Your task to perform on an android device: turn on improve location accuracy Image 0: 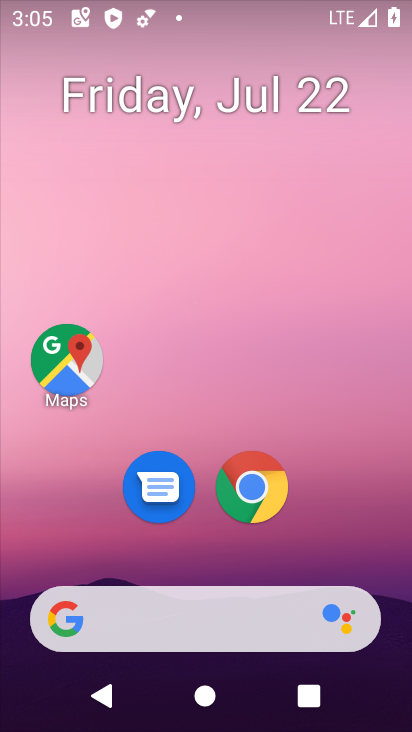
Step 0: drag from (164, 575) to (195, 0)
Your task to perform on an android device: turn on improve location accuracy Image 1: 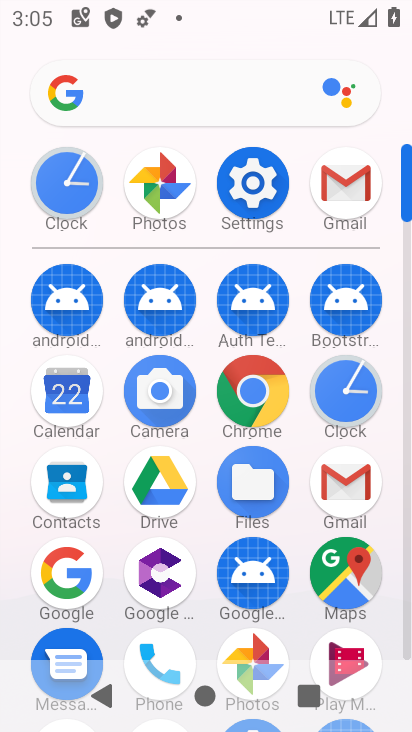
Step 1: click (255, 176)
Your task to perform on an android device: turn on improve location accuracy Image 2: 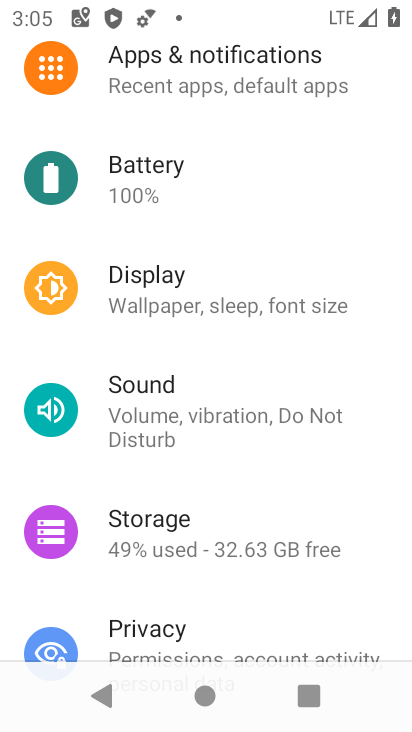
Step 2: drag from (177, 593) to (246, 123)
Your task to perform on an android device: turn on improve location accuracy Image 3: 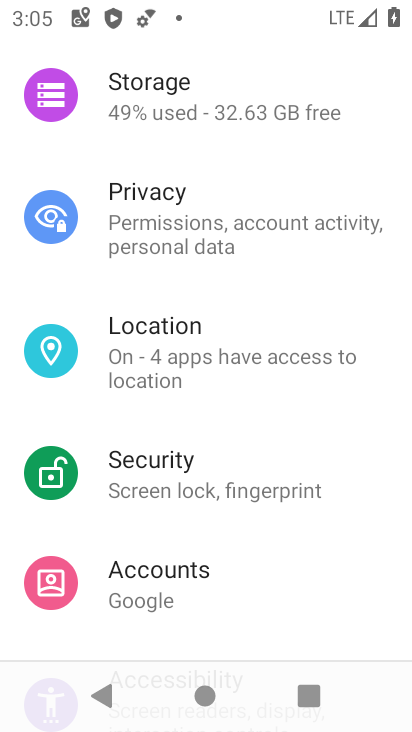
Step 3: click (177, 342)
Your task to perform on an android device: turn on improve location accuracy Image 4: 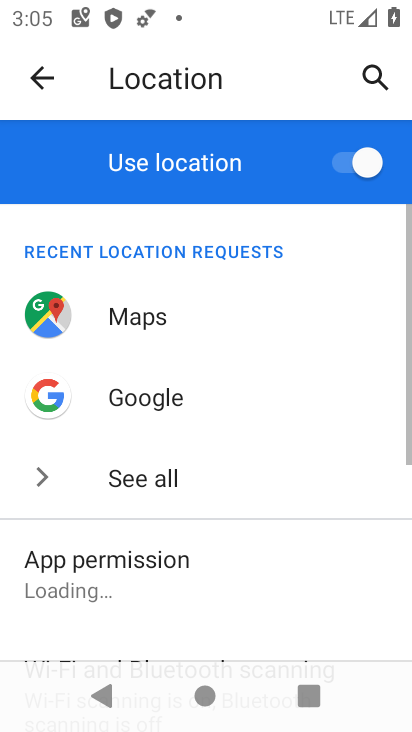
Step 4: drag from (133, 585) to (284, 42)
Your task to perform on an android device: turn on improve location accuracy Image 5: 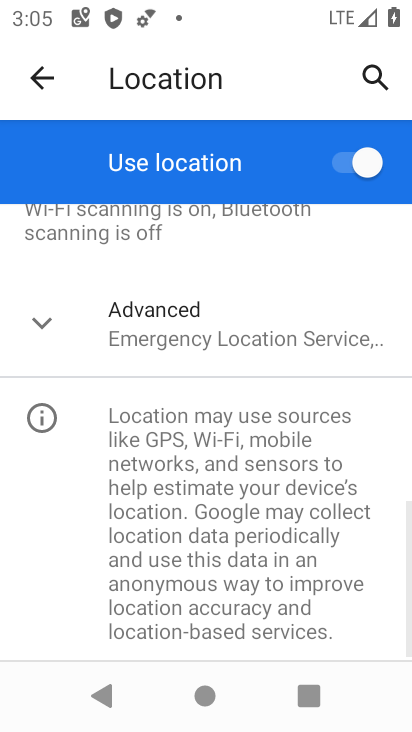
Step 5: click (212, 337)
Your task to perform on an android device: turn on improve location accuracy Image 6: 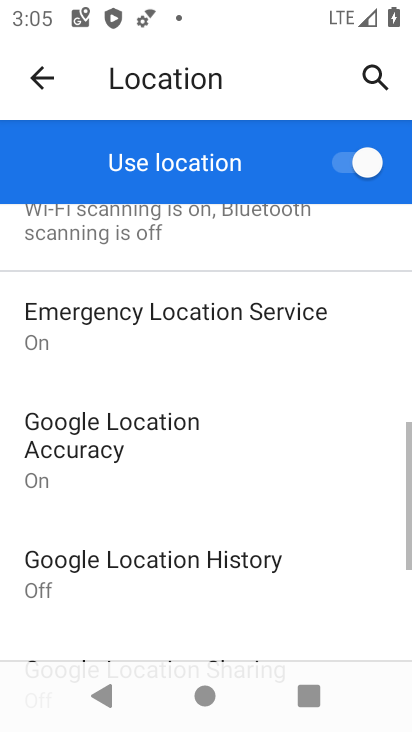
Step 6: click (77, 453)
Your task to perform on an android device: turn on improve location accuracy Image 7: 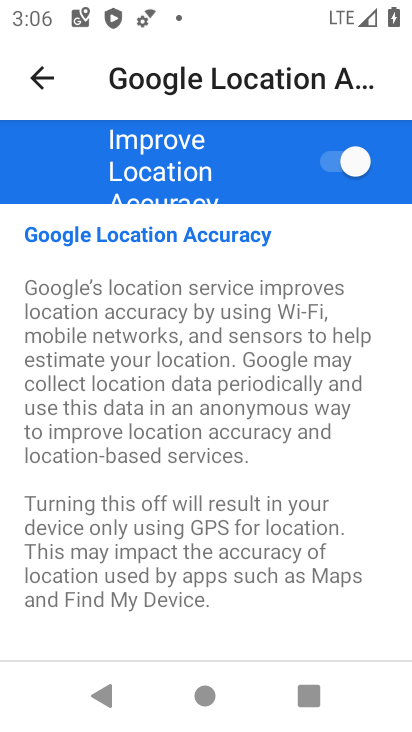
Step 7: task complete